Your task to perform on an android device: set an alarm Image 0: 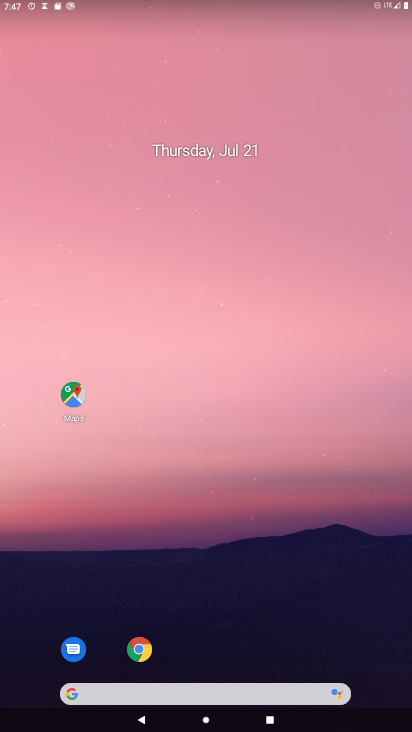
Step 0: drag from (380, 654) to (212, 38)
Your task to perform on an android device: set an alarm Image 1: 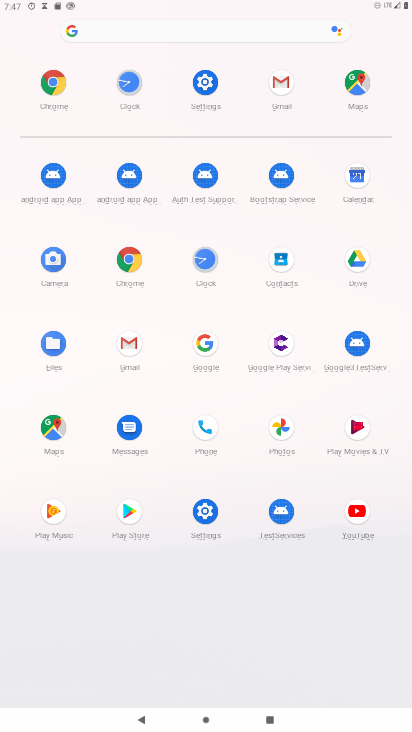
Step 1: click (212, 270)
Your task to perform on an android device: set an alarm Image 2: 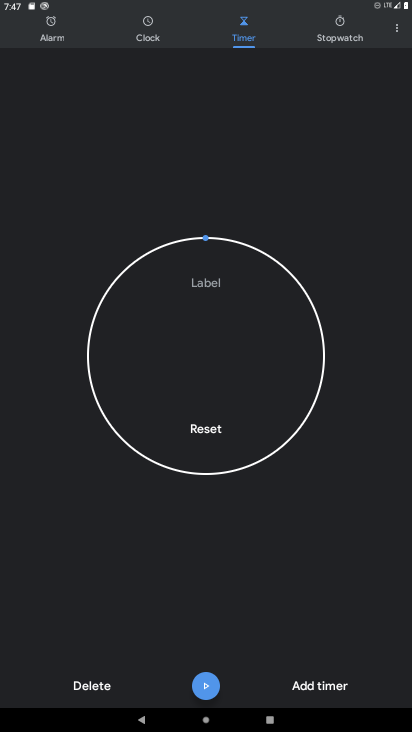
Step 2: click (47, 35)
Your task to perform on an android device: set an alarm Image 3: 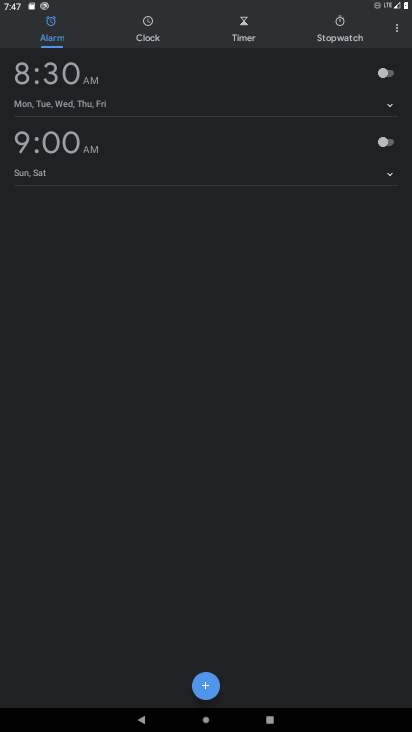
Step 3: click (368, 71)
Your task to perform on an android device: set an alarm Image 4: 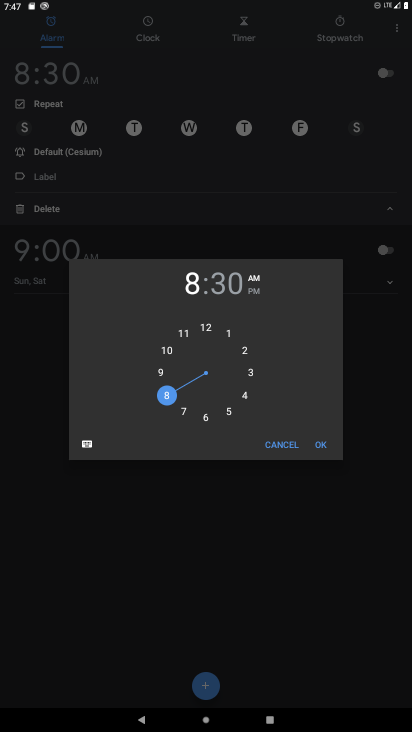
Step 4: click (309, 444)
Your task to perform on an android device: set an alarm Image 5: 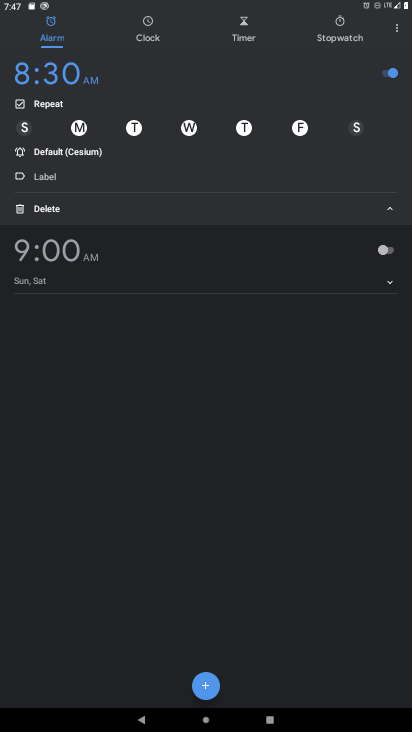
Step 5: task complete